Your task to perform on an android device: open app "The Home Depot" (install if not already installed) and go to login screen Image 0: 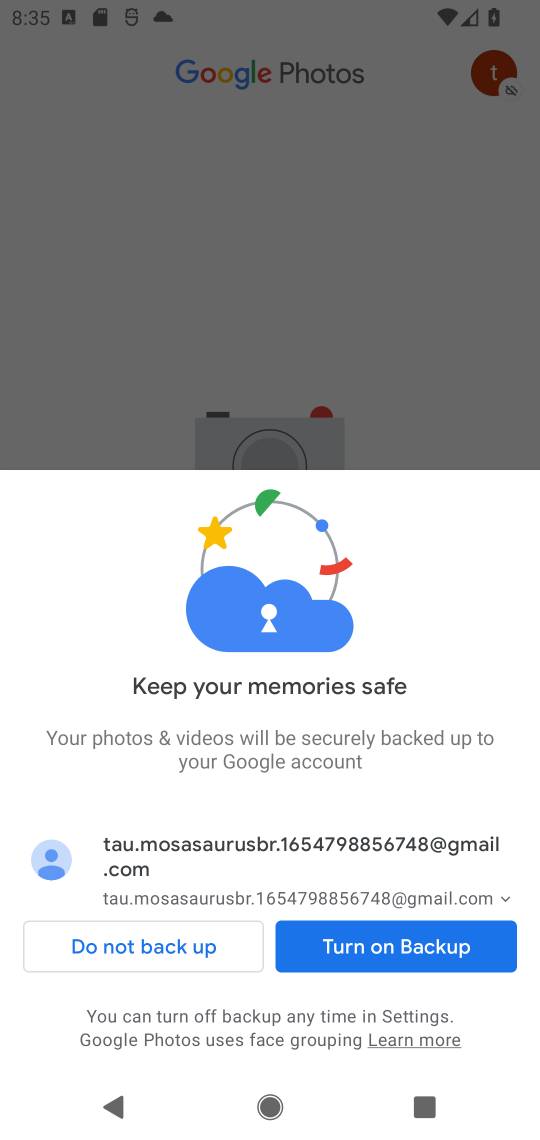
Step 0: press home button
Your task to perform on an android device: open app "The Home Depot" (install if not already installed) and go to login screen Image 1: 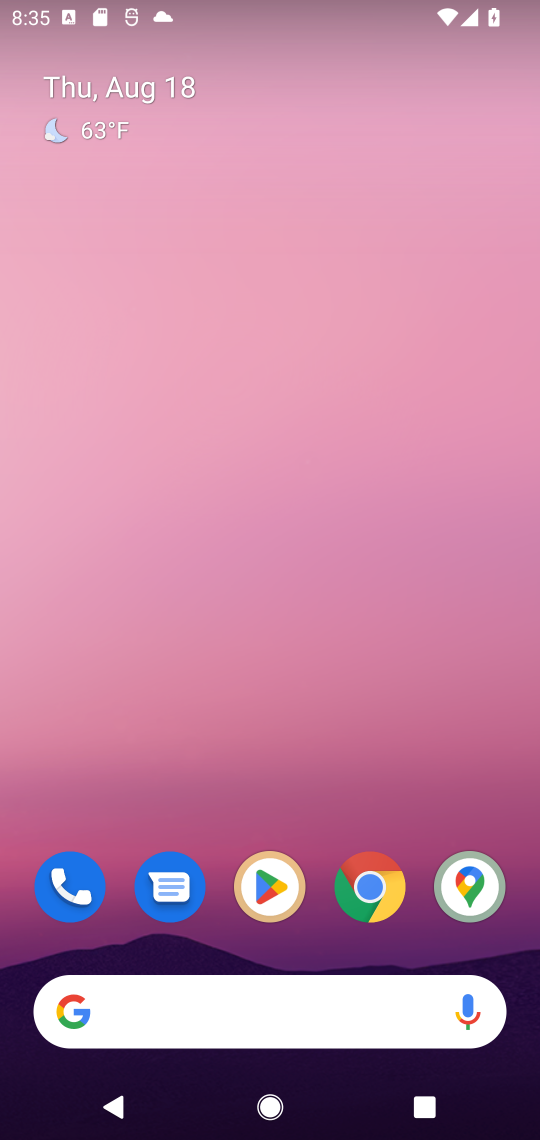
Step 1: click (265, 883)
Your task to perform on an android device: open app "The Home Depot" (install if not already installed) and go to login screen Image 2: 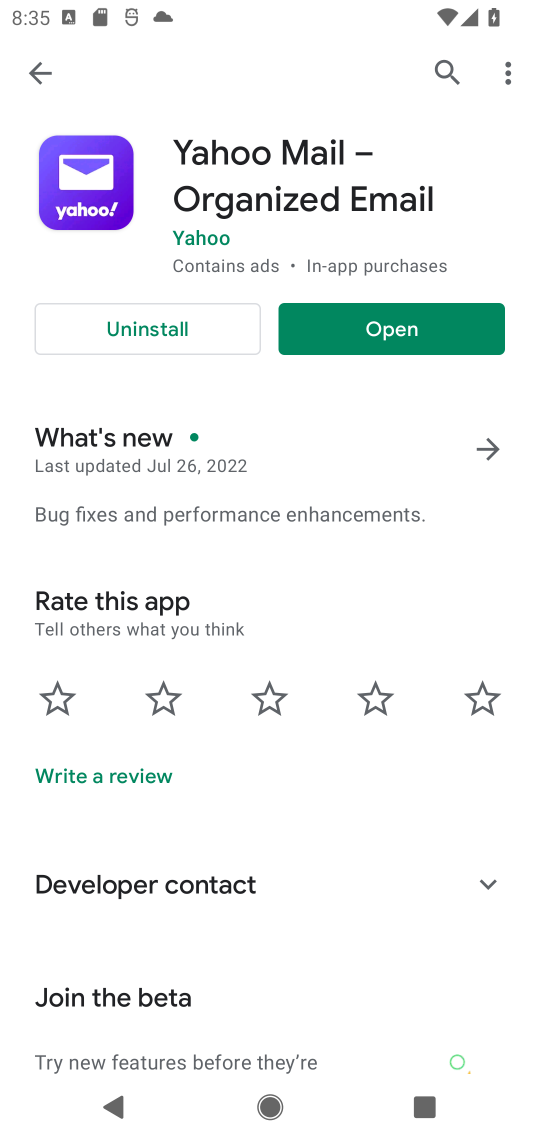
Step 2: click (453, 68)
Your task to perform on an android device: open app "The Home Depot" (install if not already installed) and go to login screen Image 3: 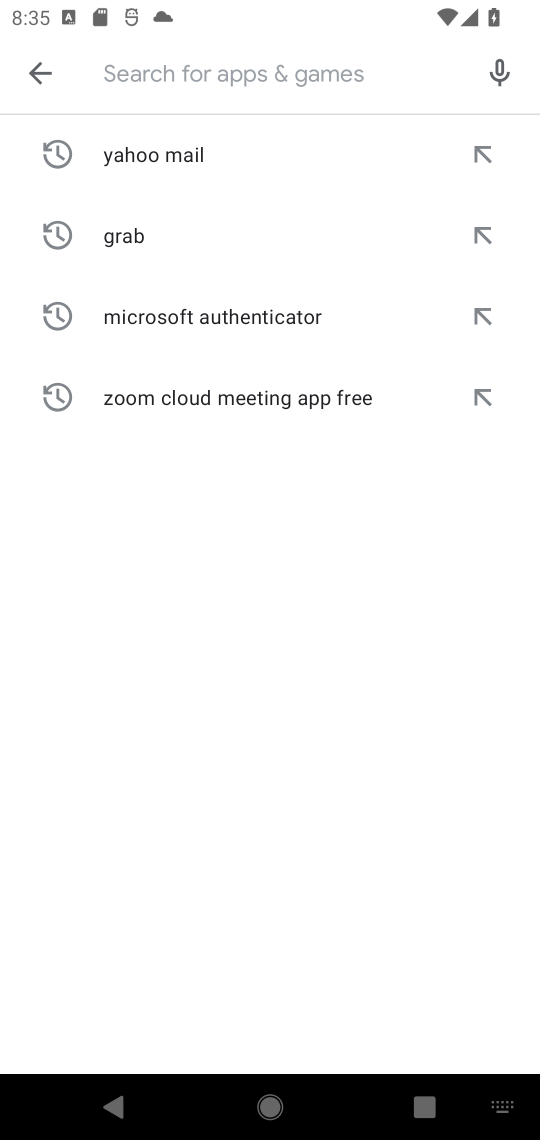
Step 3: type "The Home Depot"
Your task to perform on an android device: open app "The Home Depot" (install if not already installed) and go to login screen Image 4: 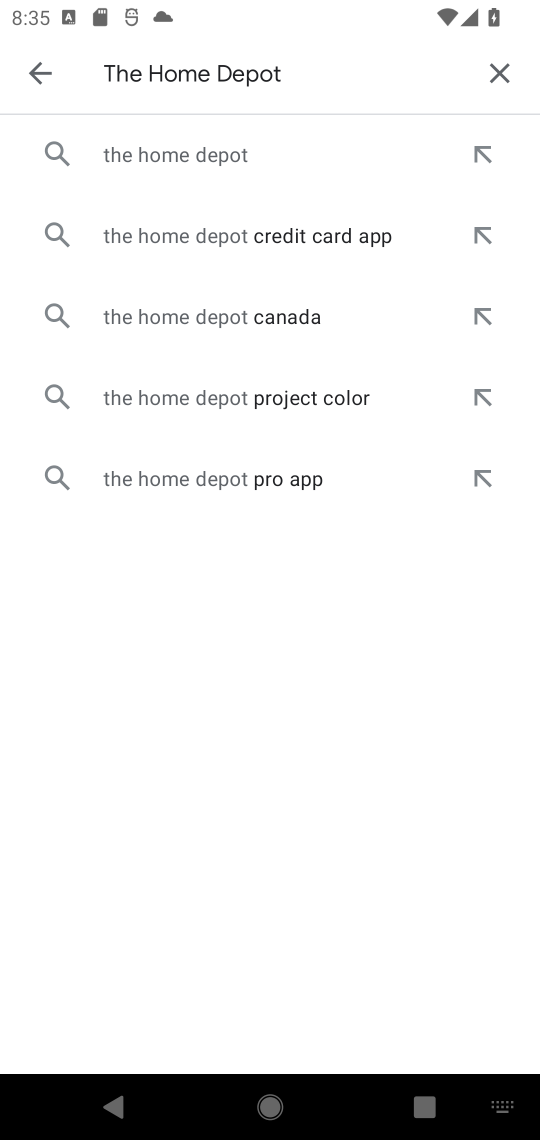
Step 4: click (228, 160)
Your task to perform on an android device: open app "The Home Depot" (install if not already installed) and go to login screen Image 5: 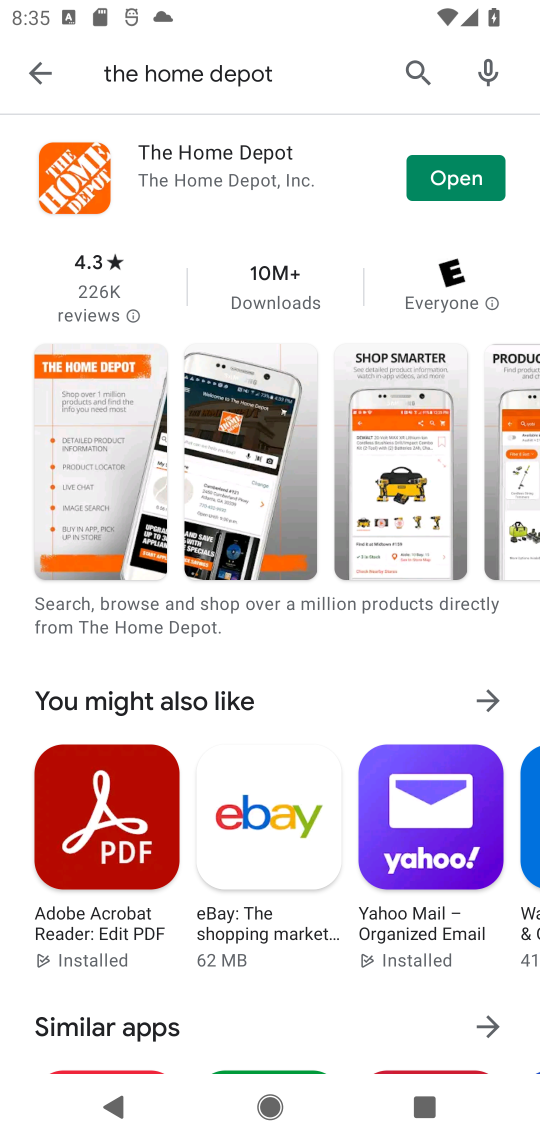
Step 5: click (462, 182)
Your task to perform on an android device: open app "The Home Depot" (install if not already installed) and go to login screen Image 6: 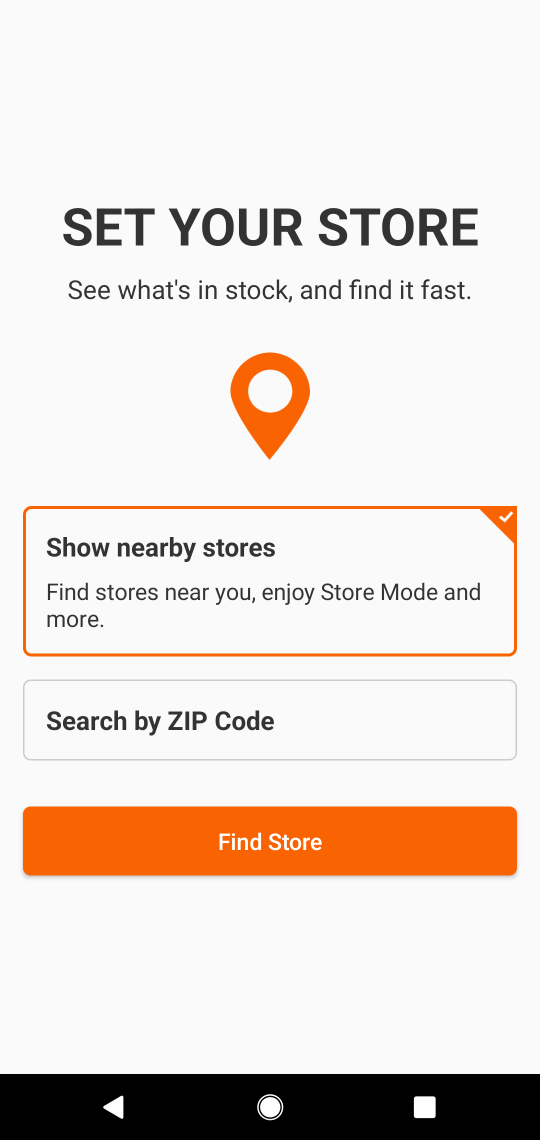
Step 6: task complete